Your task to perform on an android device: Open Yahoo.com Image 0: 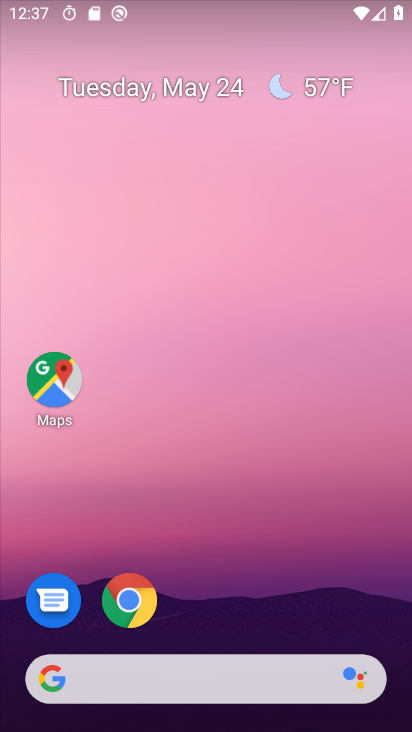
Step 0: click (122, 598)
Your task to perform on an android device: Open Yahoo.com Image 1: 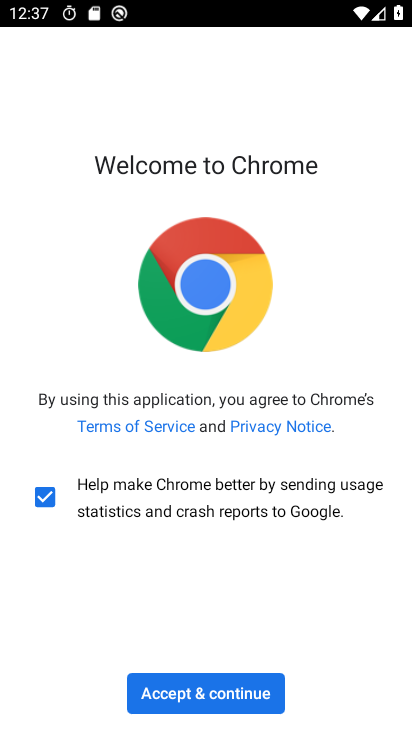
Step 1: click (175, 704)
Your task to perform on an android device: Open Yahoo.com Image 2: 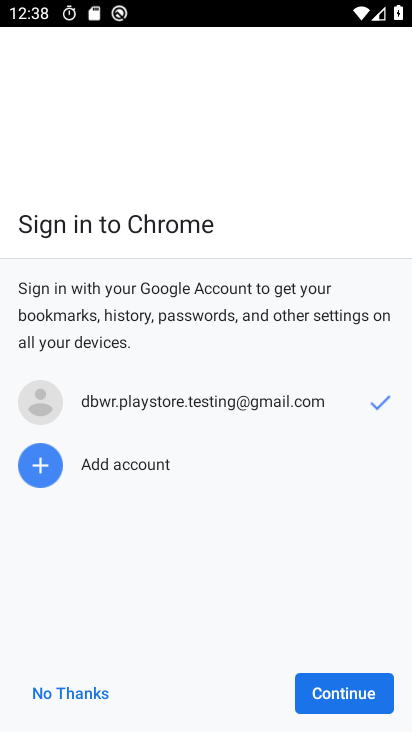
Step 2: click (363, 697)
Your task to perform on an android device: Open Yahoo.com Image 3: 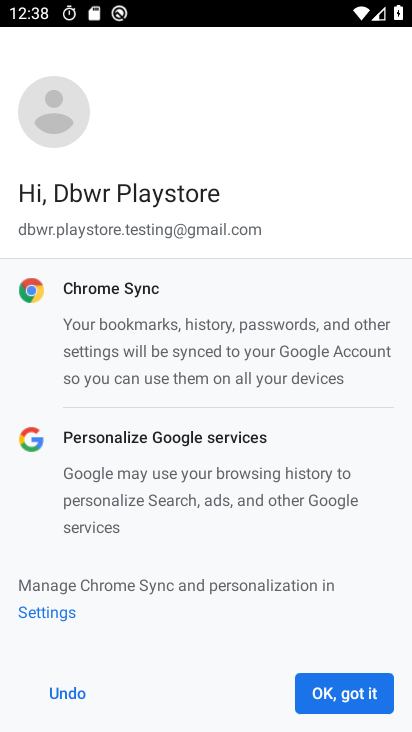
Step 3: click (337, 693)
Your task to perform on an android device: Open Yahoo.com Image 4: 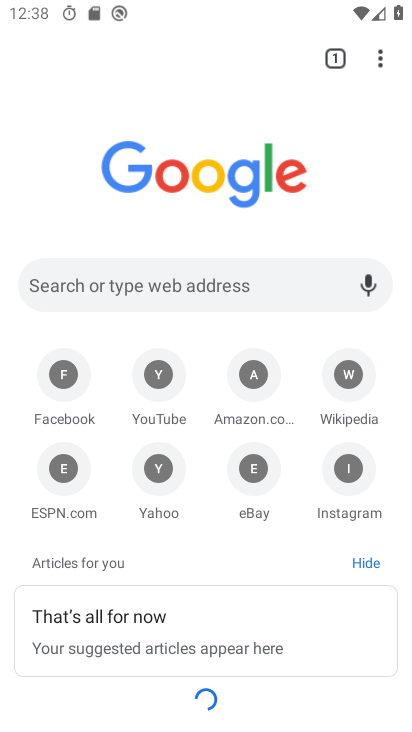
Step 4: click (153, 476)
Your task to perform on an android device: Open Yahoo.com Image 5: 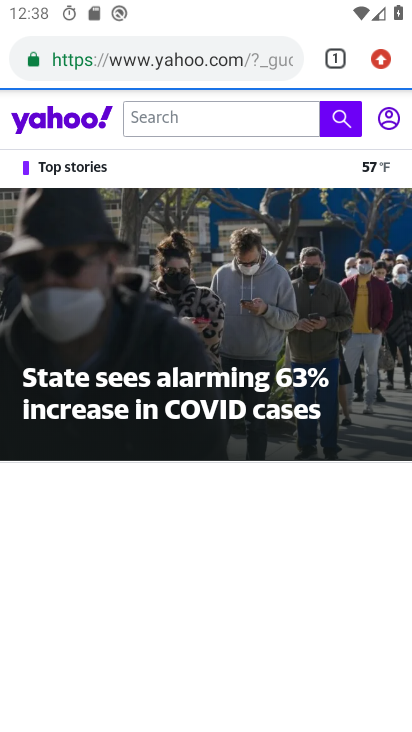
Step 5: task complete